Your task to perform on an android device: turn smart compose on in the gmail app Image 0: 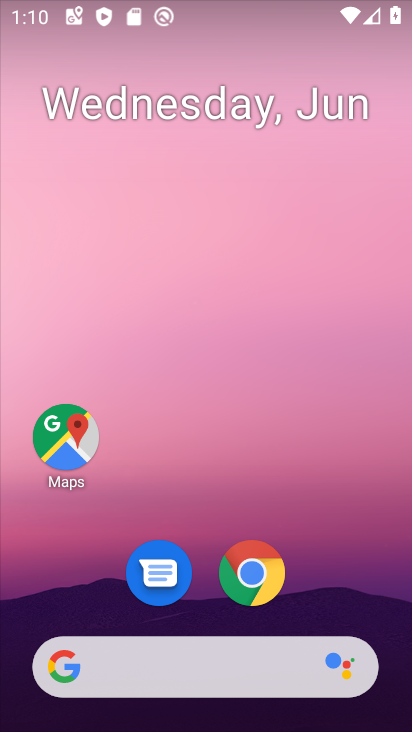
Step 0: drag from (323, 549) to (289, 127)
Your task to perform on an android device: turn smart compose on in the gmail app Image 1: 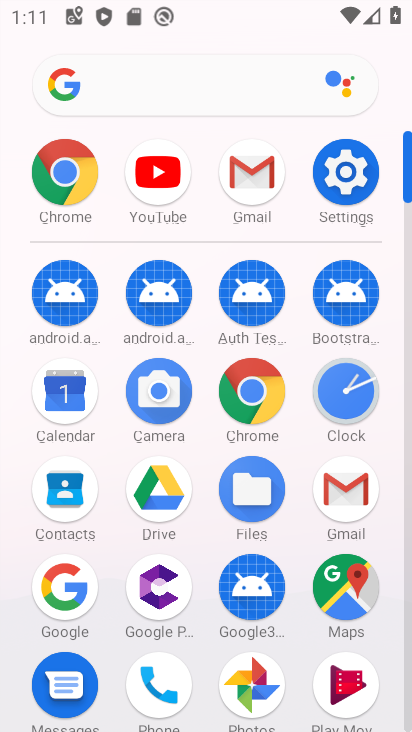
Step 1: click (347, 504)
Your task to perform on an android device: turn smart compose on in the gmail app Image 2: 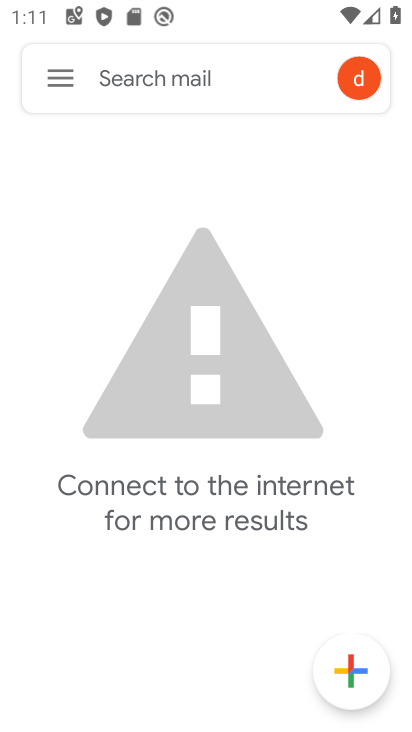
Step 2: click (54, 75)
Your task to perform on an android device: turn smart compose on in the gmail app Image 3: 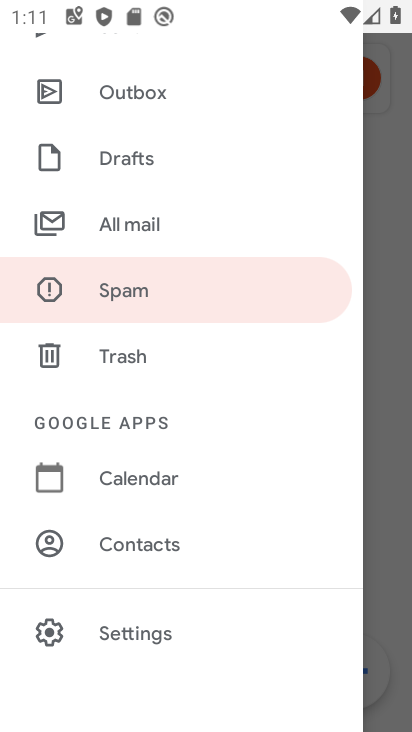
Step 3: click (173, 612)
Your task to perform on an android device: turn smart compose on in the gmail app Image 4: 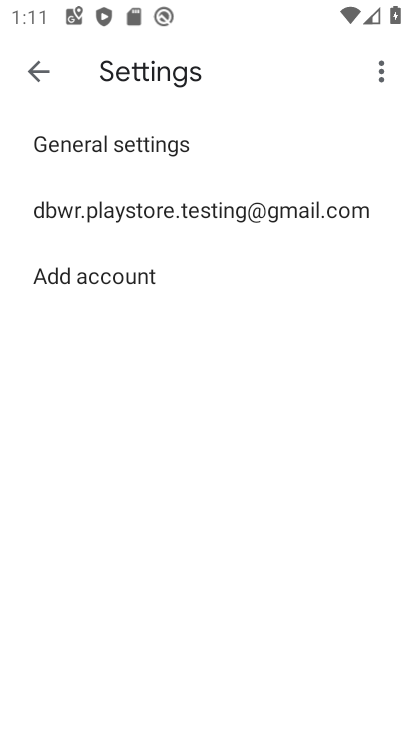
Step 4: click (193, 205)
Your task to perform on an android device: turn smart compose on in the gmail app Image 5: 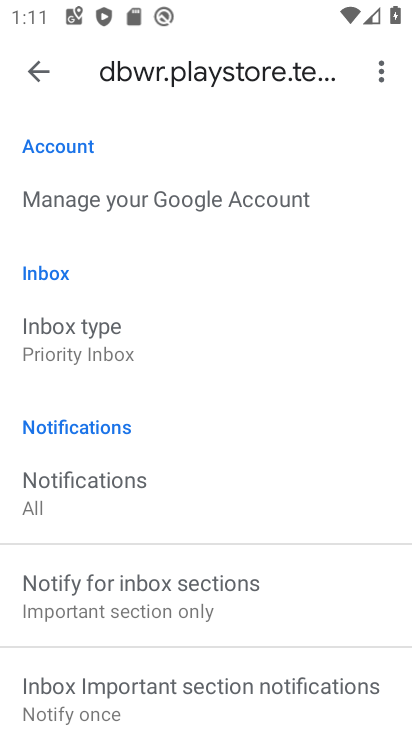
Step 5: task complete